Your task to perform on an android device: Go to Yahoo.com Image 0: 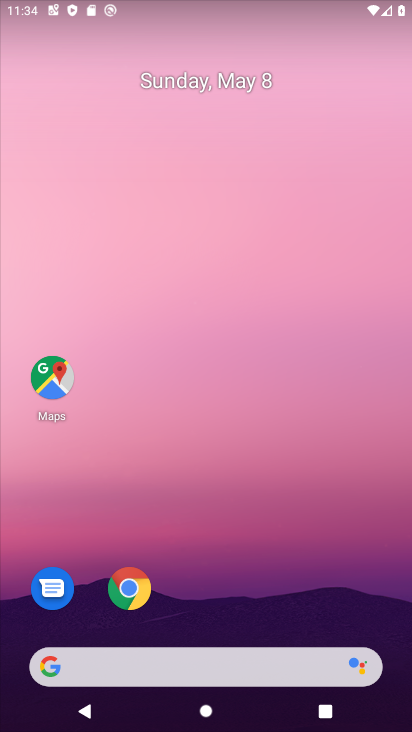
Step 0: click (128, 575)
Your task to perform on an android device: Go to Yahoo.com Image 1: 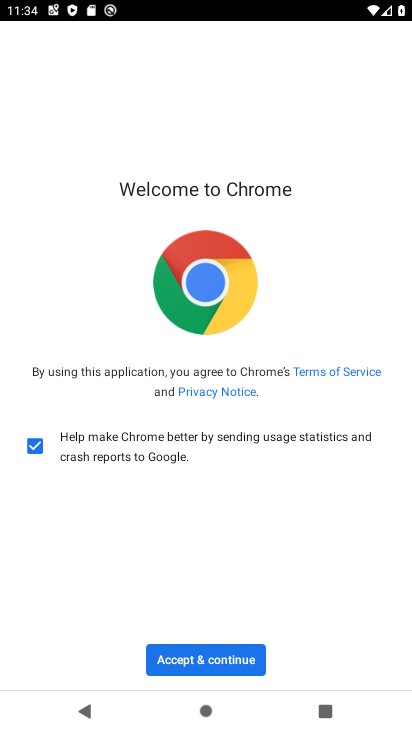
Step 1: click (212, 667)
Your task to perform on an android device: Go to Yahoo.com Image 2: 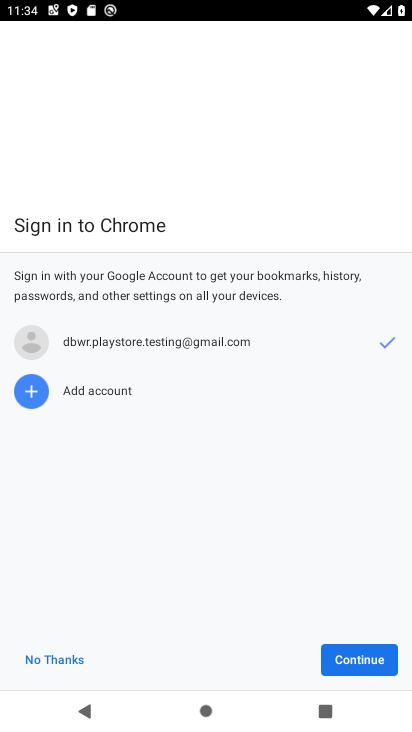
Step 2: click (352, 656)
Your task to perform on an android device: Go to Yahoo.com Image 3: 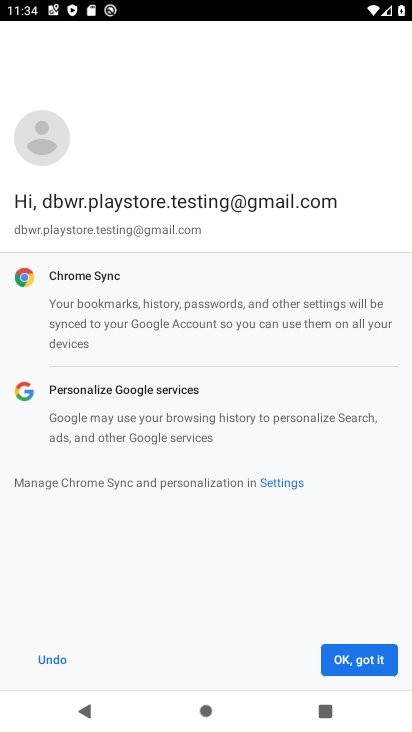
Step 3: click (352, 656)
Your task to perform on an android device: Go to Yahoo.com Image 4: 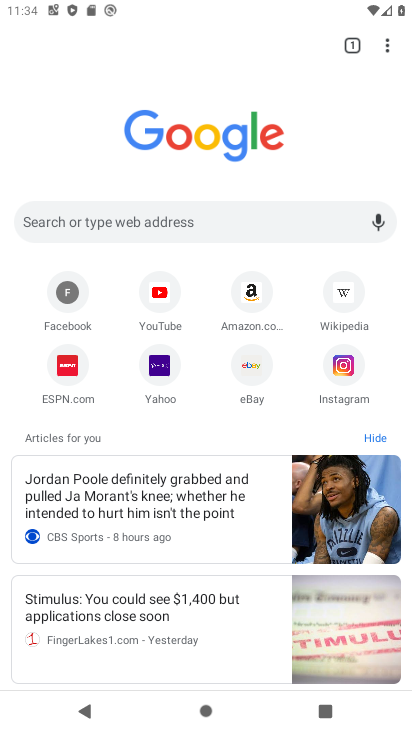
Step 4: click (162, 370)
Your task to perform on an android device: Go to Yahoo.com Image 5: 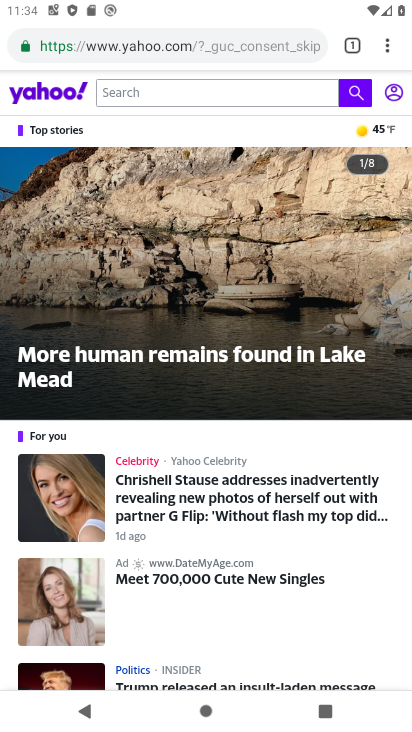
Step 5: task complete